Your task to perform on an android device: change the clock display to show seconds Image 0: 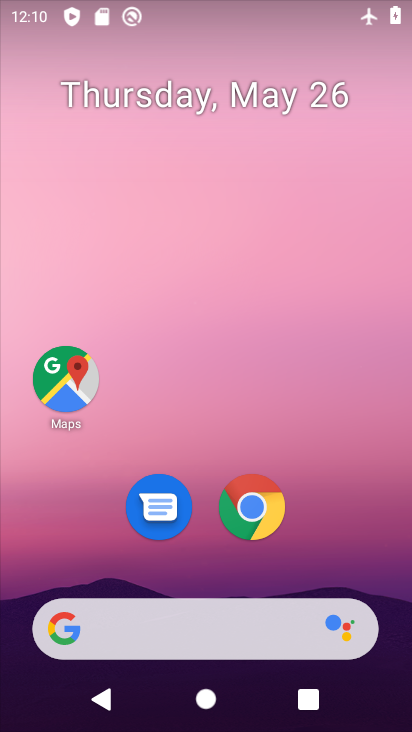
Step 0: drag from (220, 494) to (219, 118)
Your task to perform on an android device: change the clock display to show seconds Image 1: 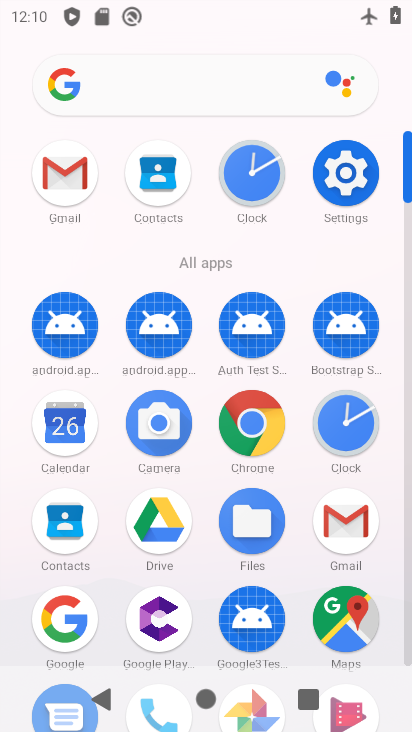
Step 1: click (233, 168)
Your task to perform on an android device: change the clock display to show seconds Image 2: 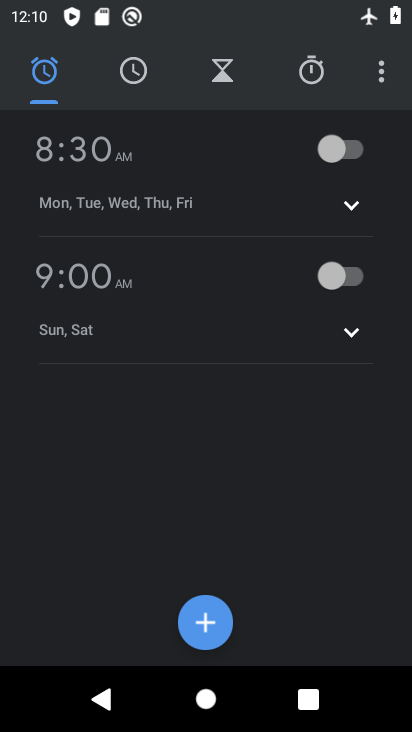
Step 2: click (377, 75)
Your task to perform on an android device: change the clock display to show seconds Image 3: 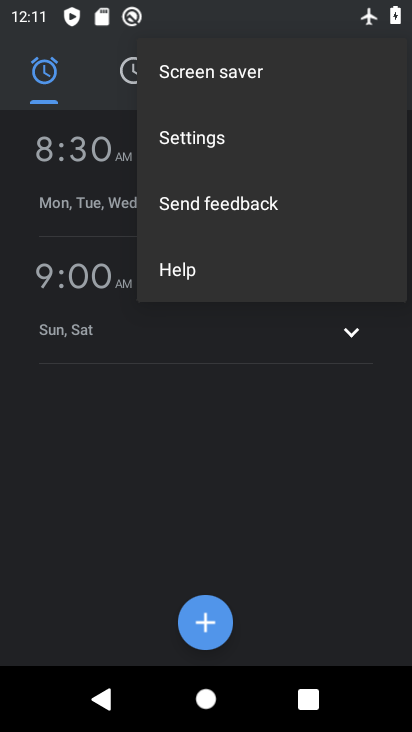
Step 3: click (231, 142)
Your task to perform on an android device: change the clock display to show seconds Image 4: 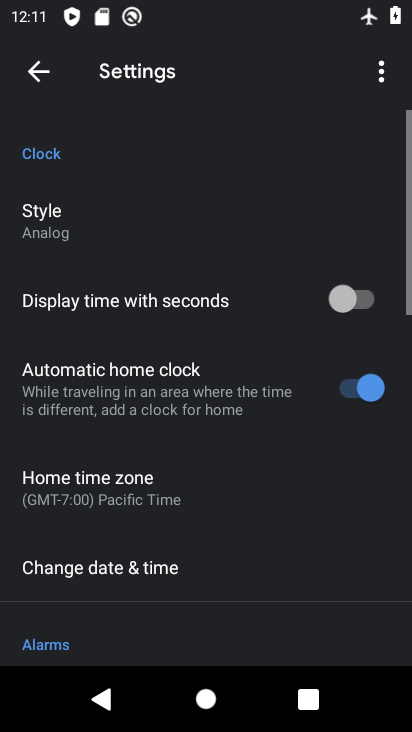
Step 4: click (360, 301)
Your task to perform on an android device: change the clock display to show seconds Image 5: 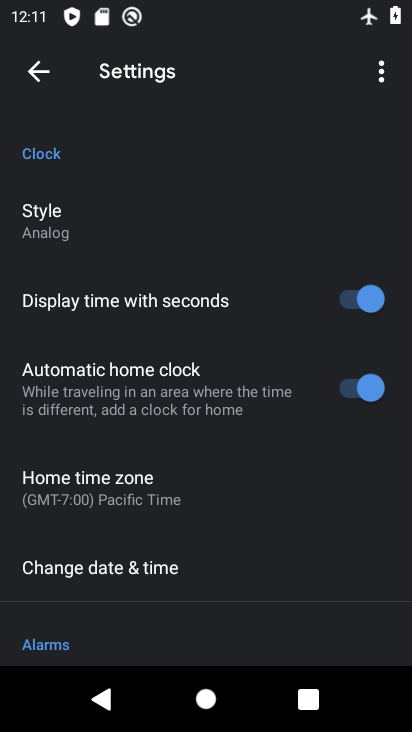
Step 5: task complete